Your task to perform on an android device: Open calendar and show me the first week of next month Image 0: 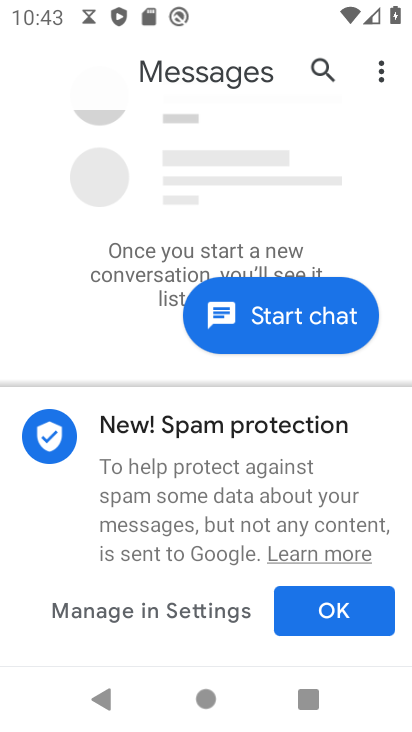
Step 0: press home button
Your task to perform on an android device: Open calendar and show me the first week of next month Image 1: 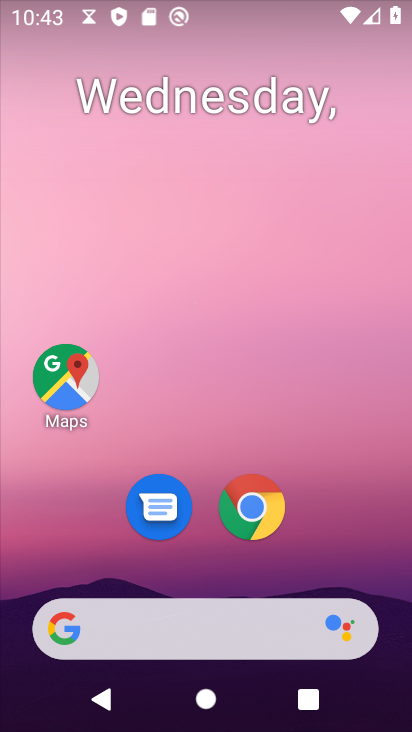
Step 1: drag from (276, 685) to (213, 282)
Your task to perform on an android device: Open calendar and show me the first week of next month Image 2: 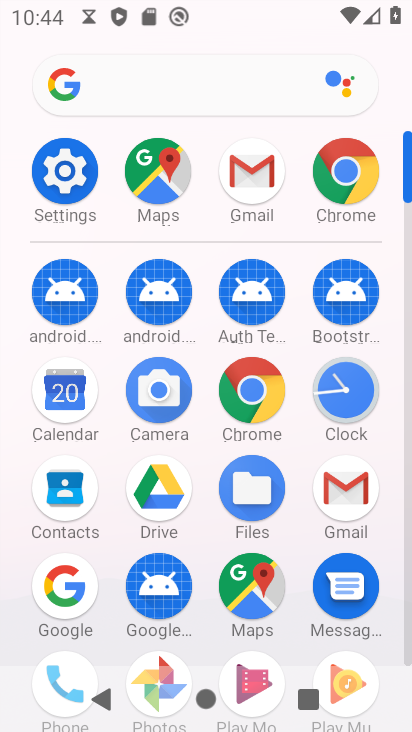
Step 2: click (75, 403)
Your task to perform on an android device: Open calendar and show me the first week of next month Image 3: 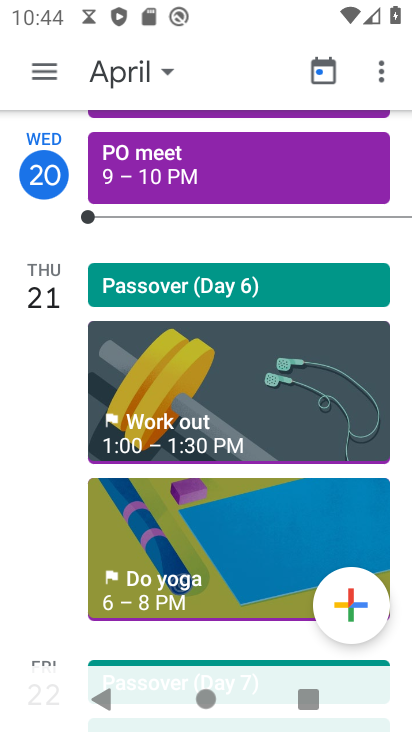
Step 3: click (44, 83)
Your task to perform on an android device: Open calendar and show me the first week of next month Image 4: 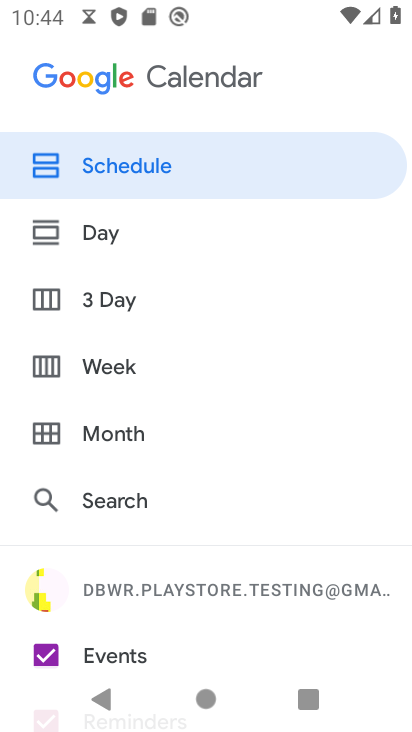
Step 4: click (128, 427)
Your task to perform on an android device: Open calendar and show me the first week of next month Image 5: 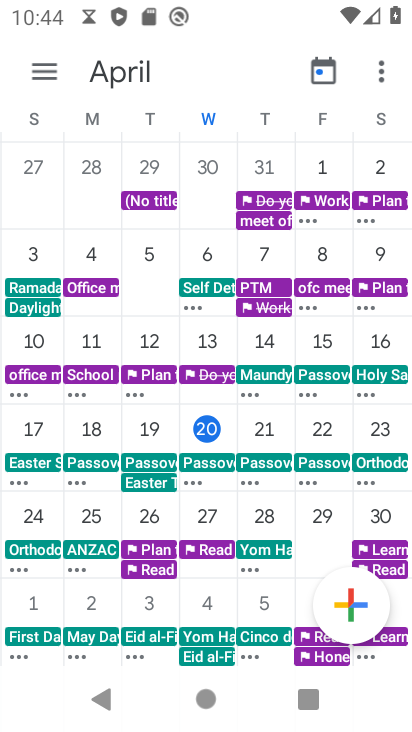
Step 5: drag from (337, 405) to (0, 460)
Your task to perform on an android device: Open calendar and show me the first week of next month Image 6: 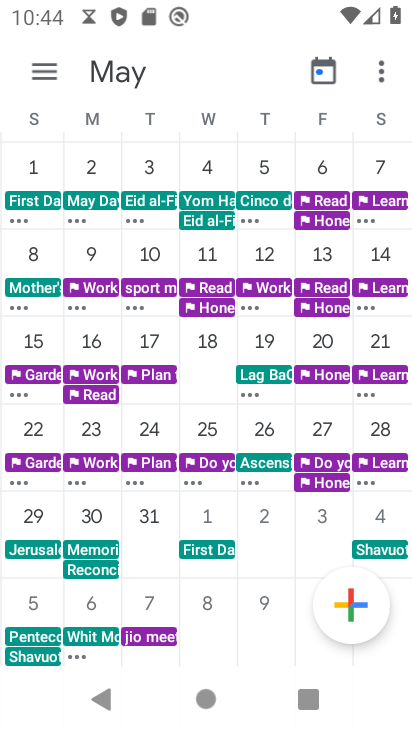
Step 6: click (88, 175)
Your task to perform on an android device: Open calendar and show me the first week of next month Image 7: 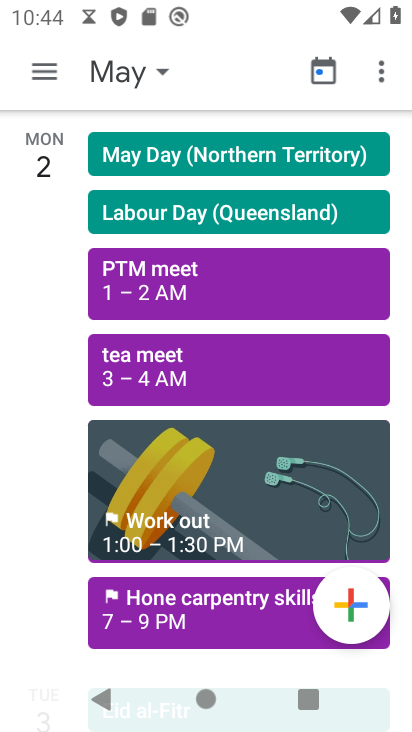
Step 7: task complete